Your task to perform on an android device: toggle sleep mode Image 0: 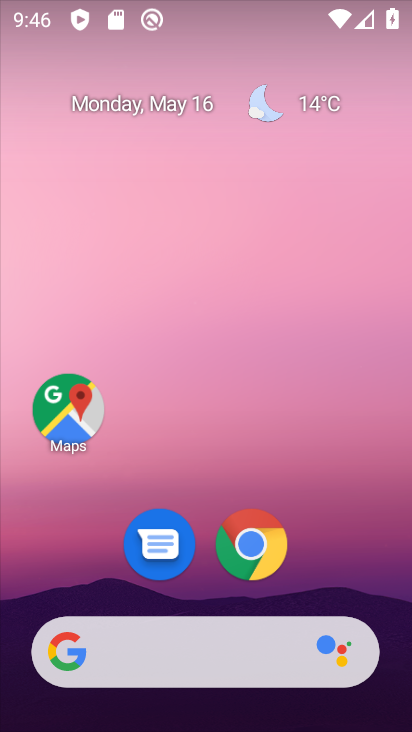
Step 0: drag from (303, 582) to (394, 131)
Your task to perform on an android device: toggle sleep mode Image 1: 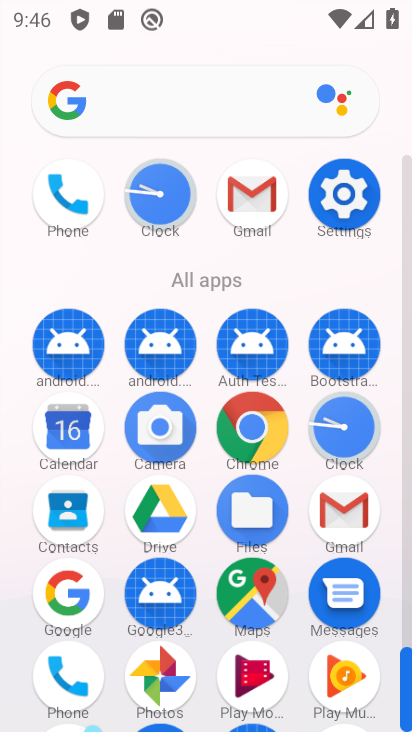
Step 1: click (367, 187)
Your task to perform on an android device: toggle sleep mode Image 2: 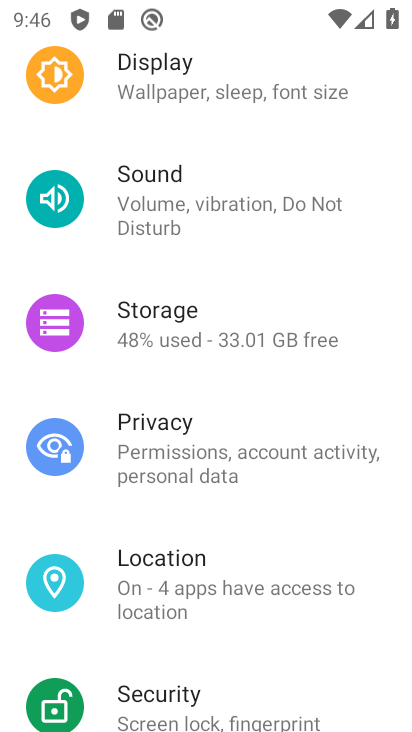
Step 2: click (213, 92)
Your task to perform on an android device: toggle sleep mode Image 3: 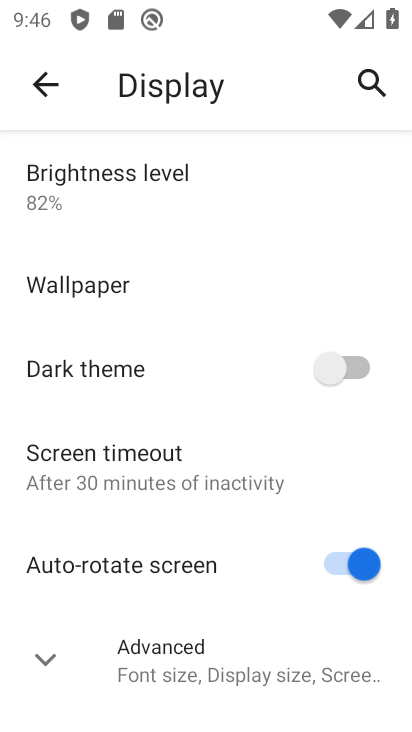
Step 3: click (52, 654)
Your task to perform on an android device: toggle sleep mode Image 4: 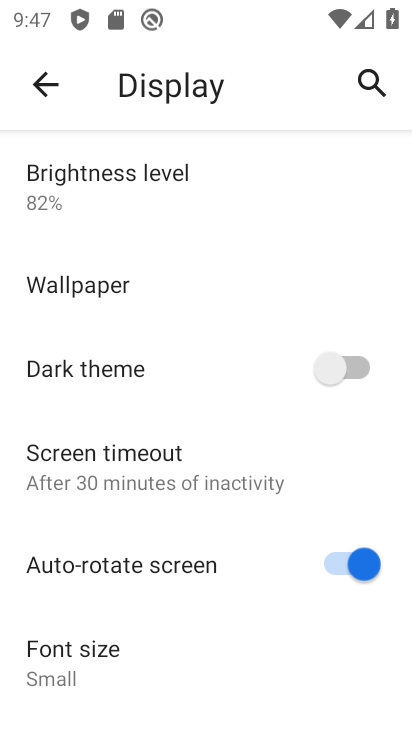
Step 4: task complete